Your task to perform on an android device: Set the phone to "Do not disturb". Image 0: 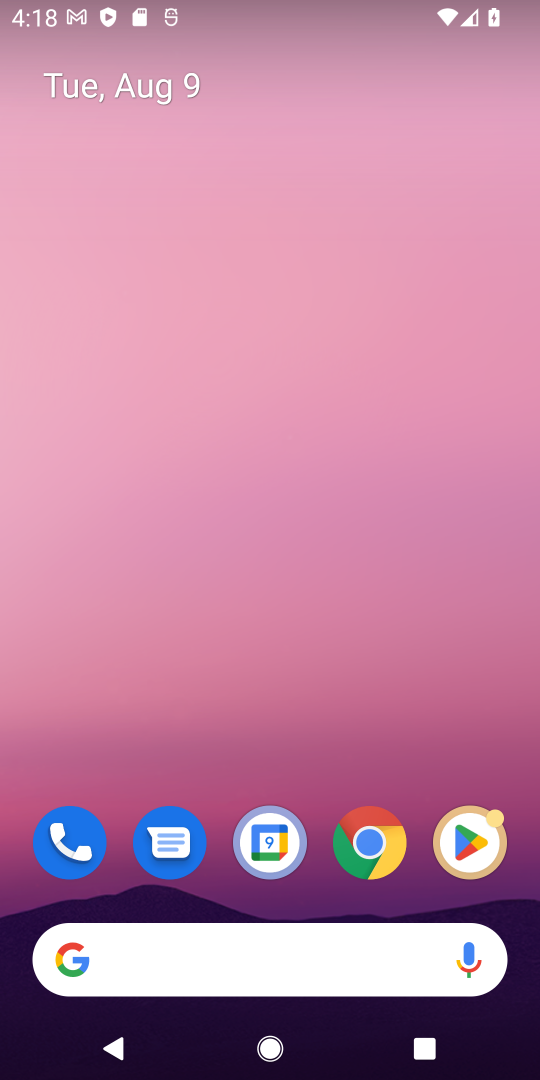
Step 0: drag from (203, 946) to (327, 109)
Your task to perform on an android device: Set the phone to "Do not disturb". Image 1: 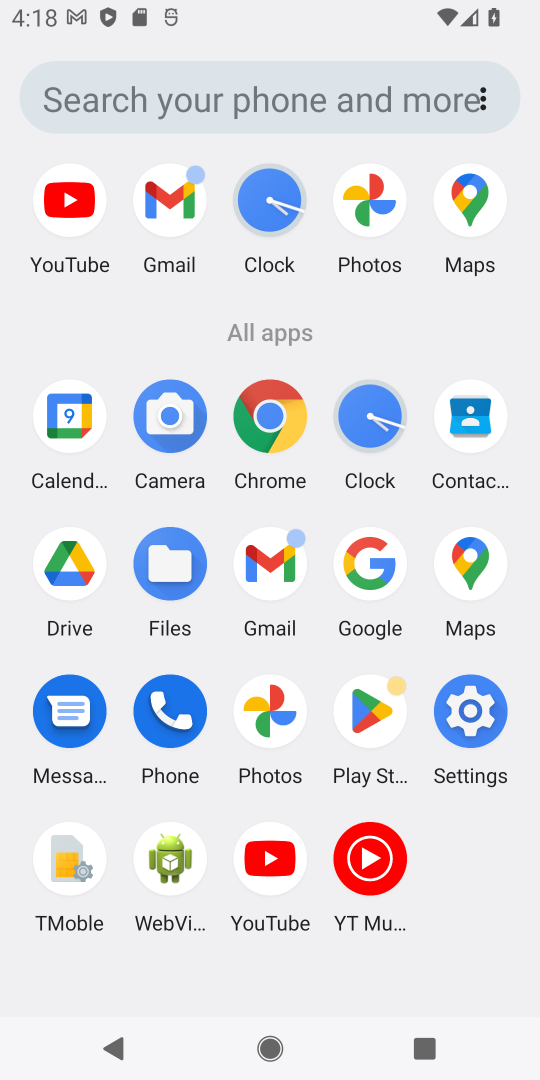
Step 1: click (478, 718)
Your task to perform on an android device: Set the phone to "Do not disturb". Image 2: 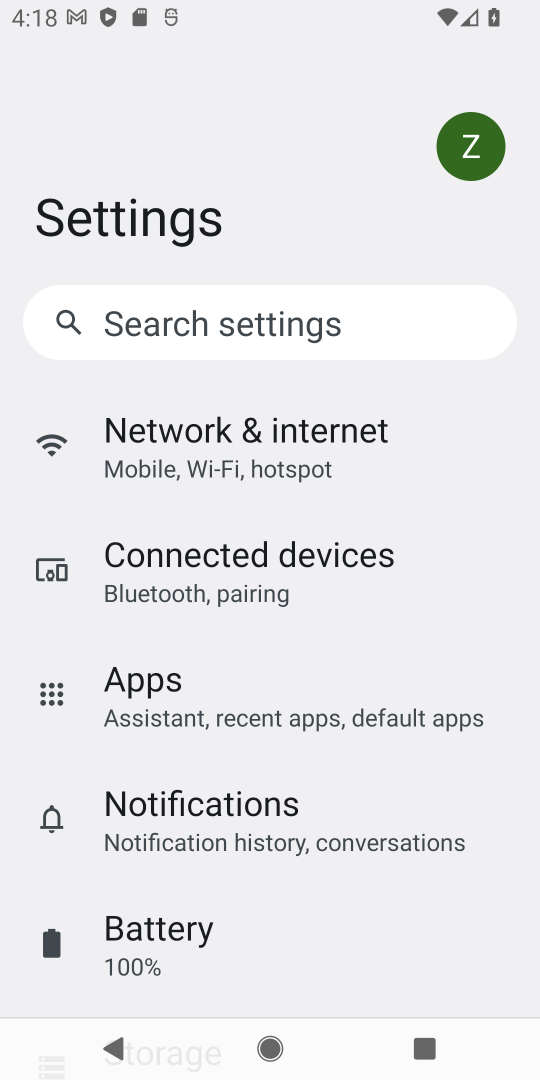
Step 2: drag from (495, 939) to (516, 575)
Your task to perform on an android device: Set the phone to "Do not disturb". Image 3: 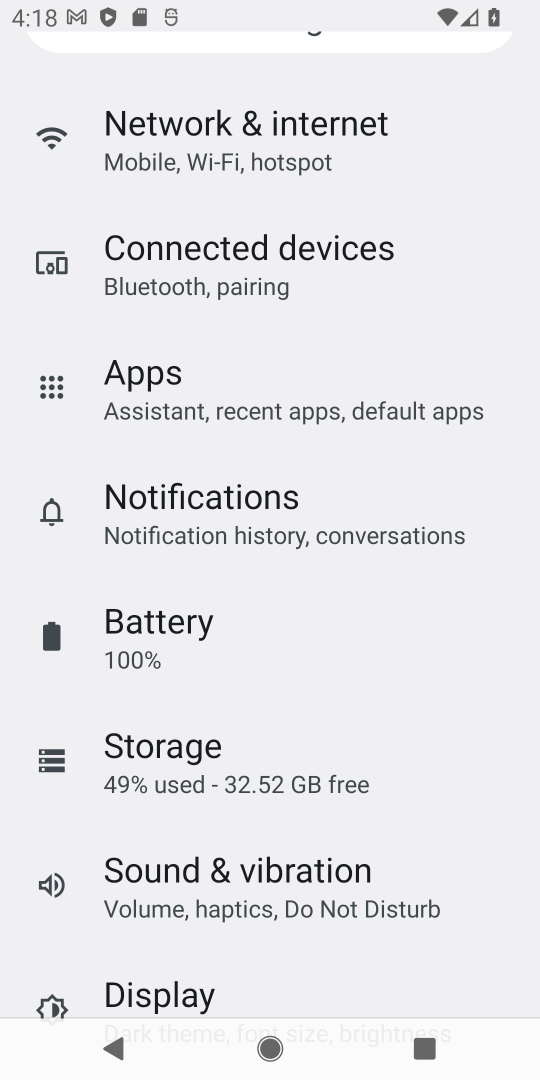
Step 3: click (261, 890)
Your task to perform on an android device: Set the phone to "Do not disturb". Image 4: 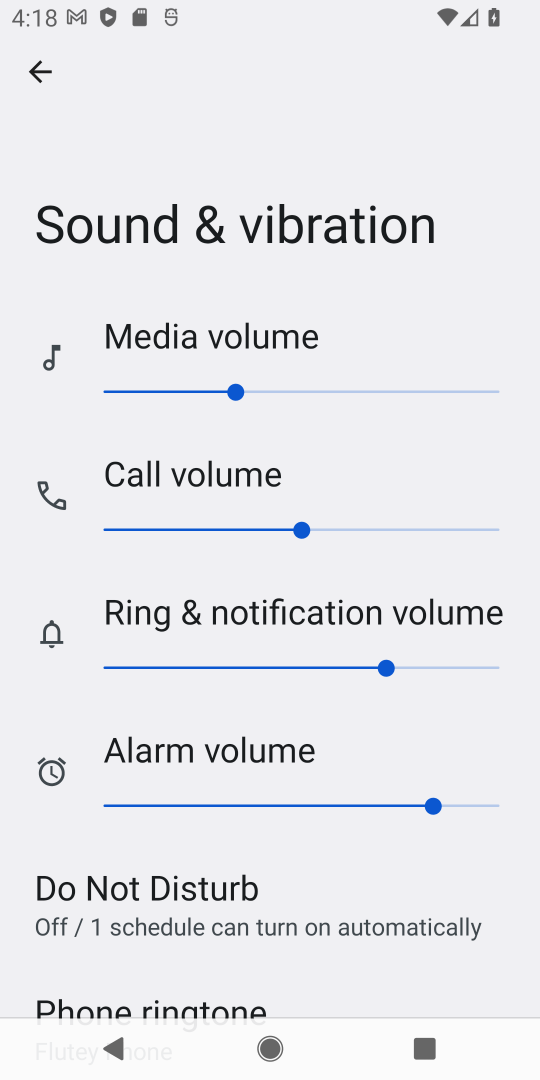
Step 4: click (376, 910)
Your task to perform on an android device: Set the phone to "Do not disturb". Image 5: 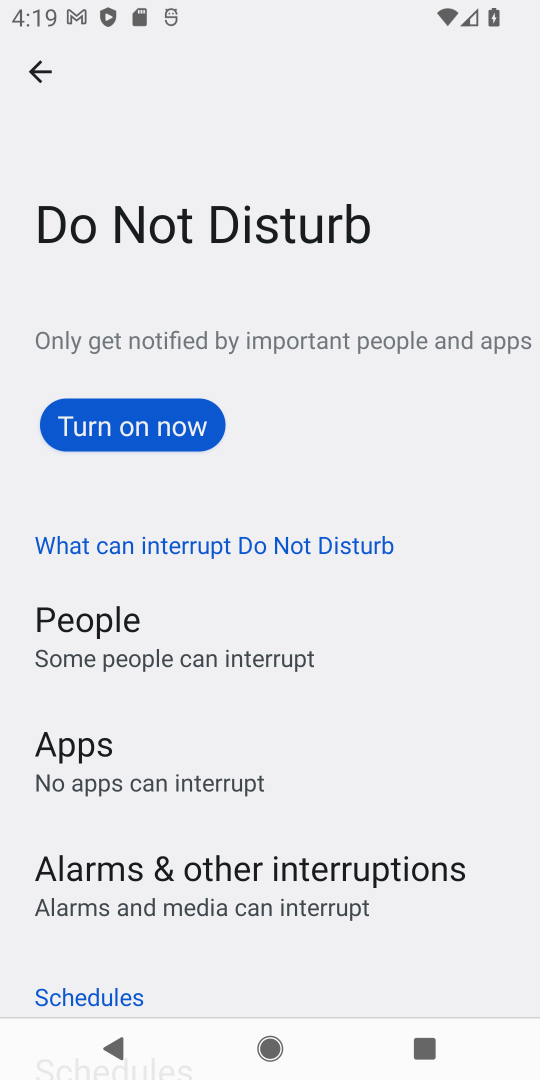
Step 5: click (164, 423)
Your task to perform on an android device: Set the phone to "Do not disturb". Image 6: 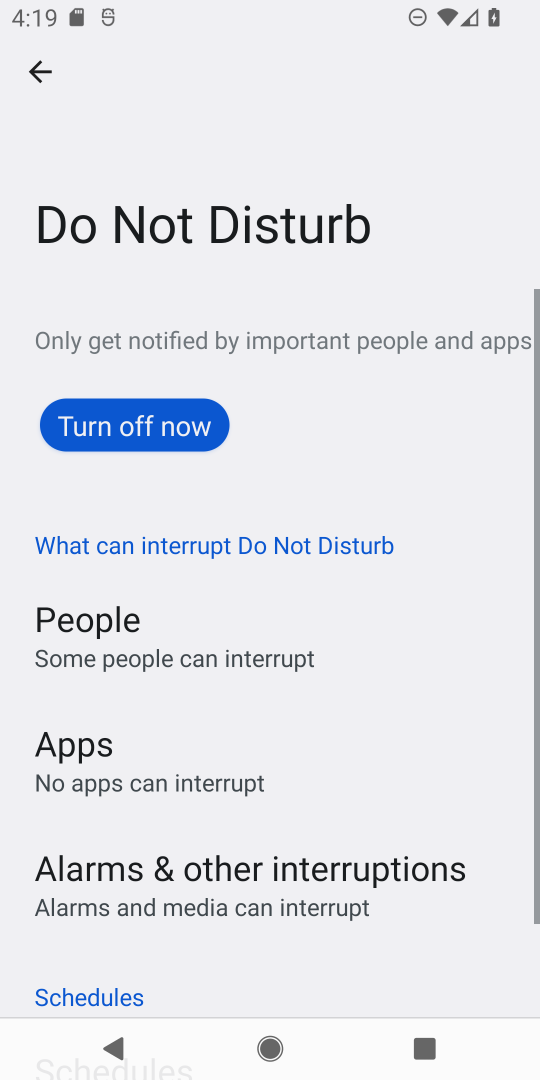
Step 6: task complete